Your task to perform on an android device: What's the weather going to be this weekend? Image 0: 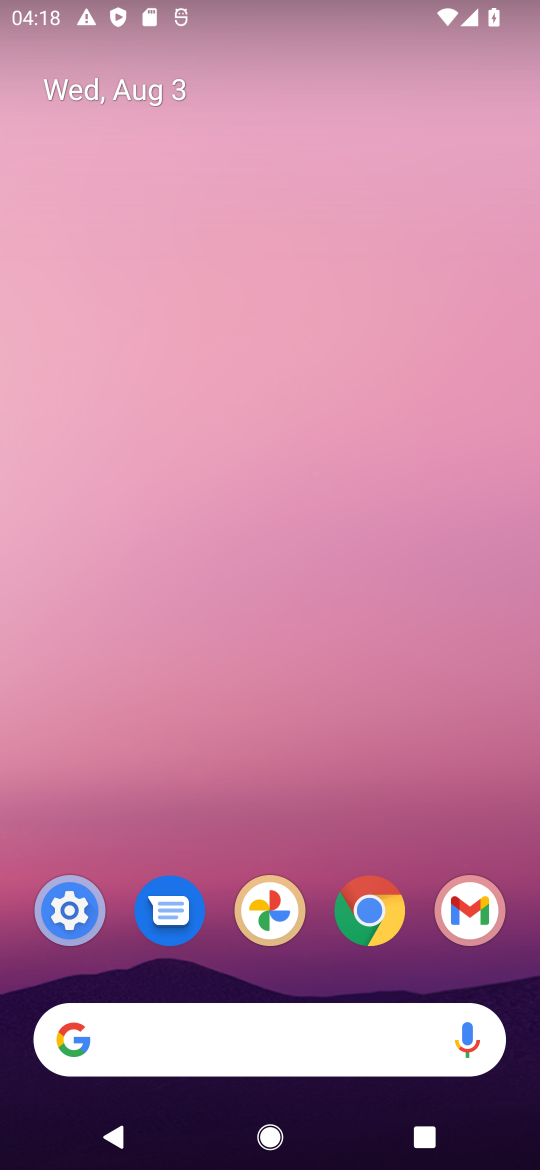
Step 0: drag from (310, 839) to (370, 5)
Your task to perform on an android device: What's the weather going to be this weekend? Image 1: 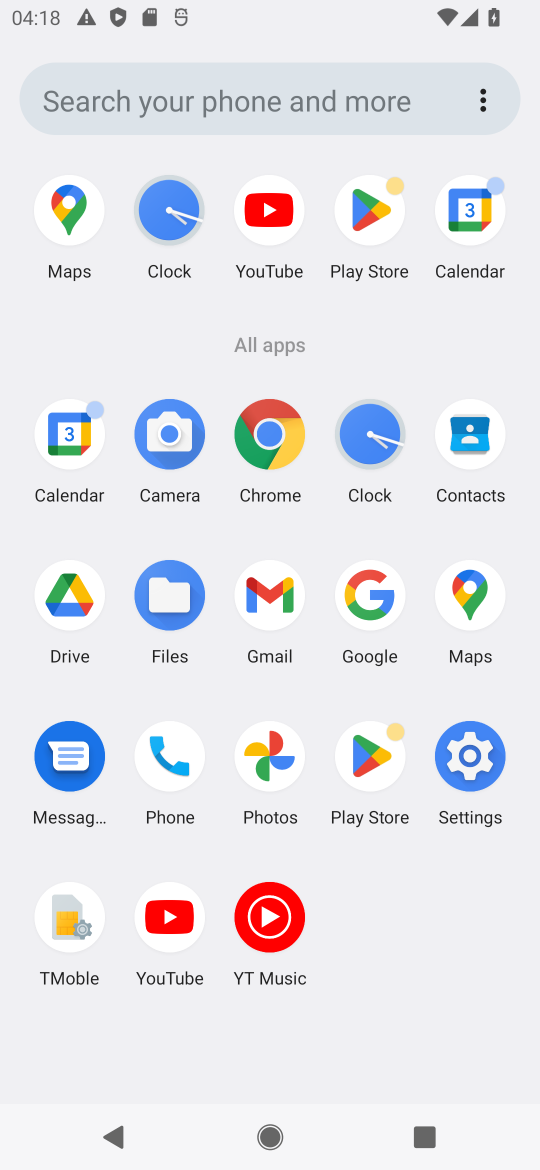
Step 1: click (208, 89)
Your task to perform on an android device: What's the weather going to be this weekend? Image 2: 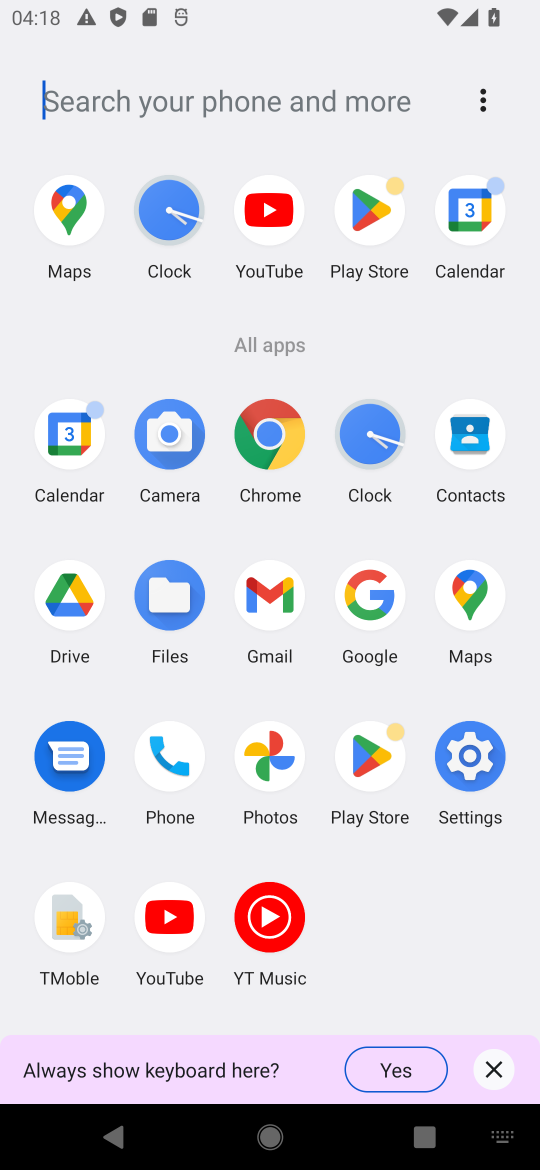
Step 2: click (493, 1066)
Your task to perform on an android device: What's the weather going to be this weekend? Image 3: 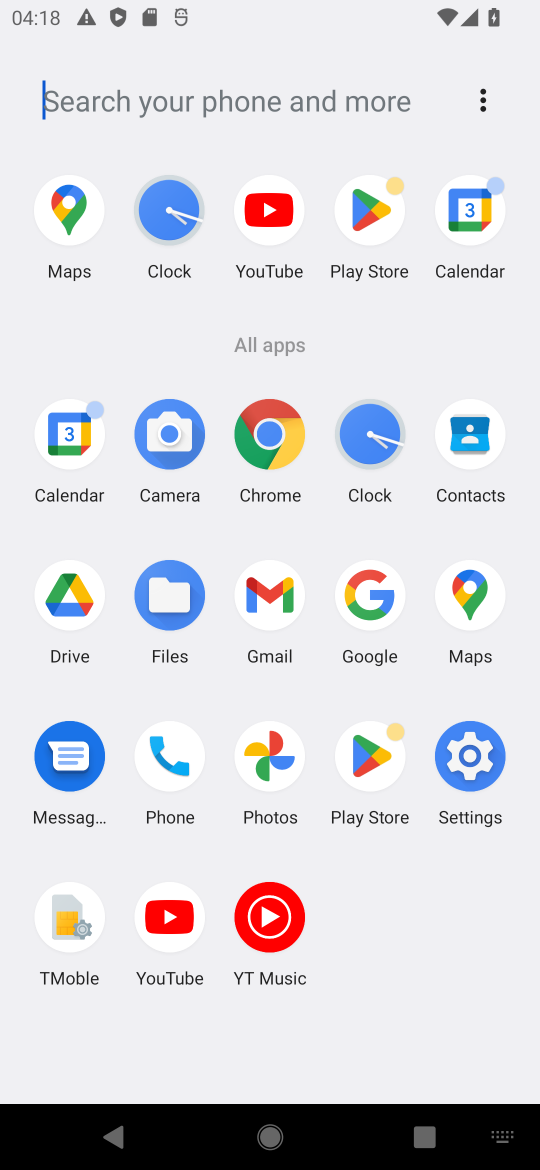
Step 3: type "weather"
Your task to perform on an android device: What's the weather going to be this weekend? Image 4: 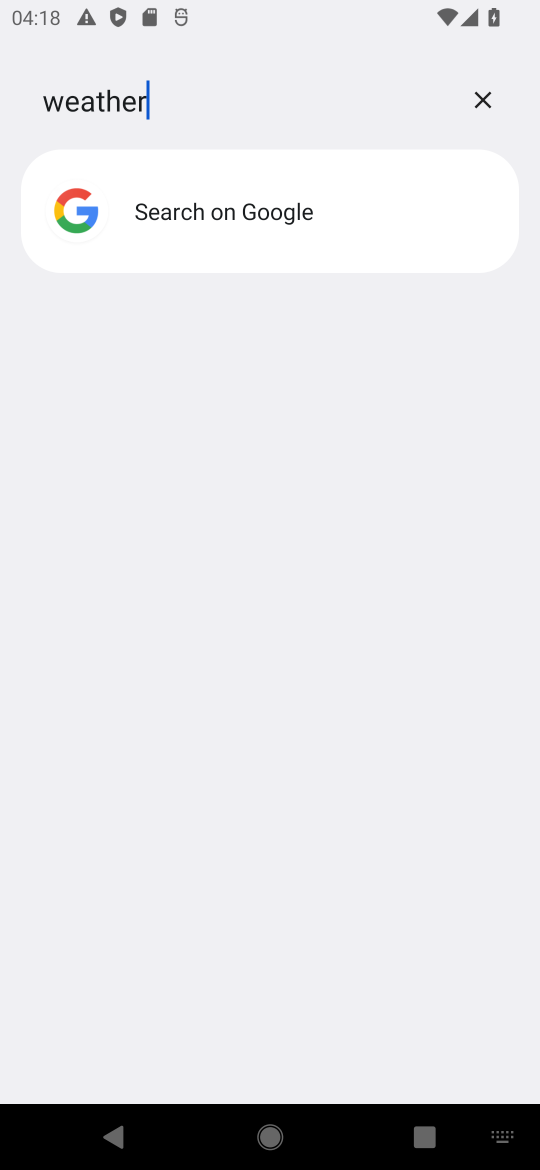
Step 4: click (215, 210)
Your task to perform on an android device: What's the weather going to be this weekend? Image 5: 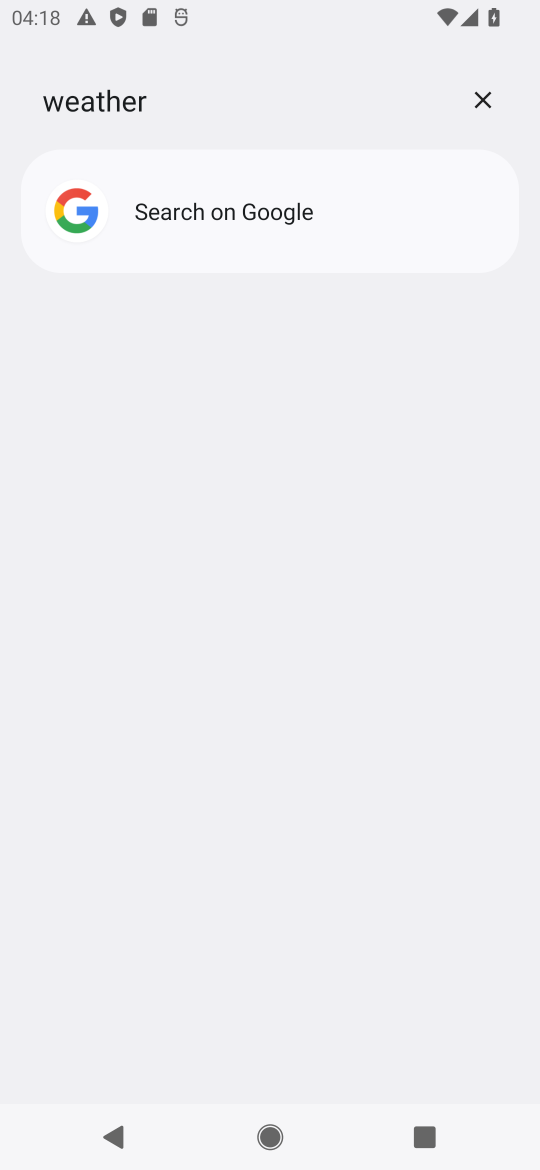
Step 5: click (159, 221)
Your task to perform on an android device: What's the weather going to be this weekend? Image 6: 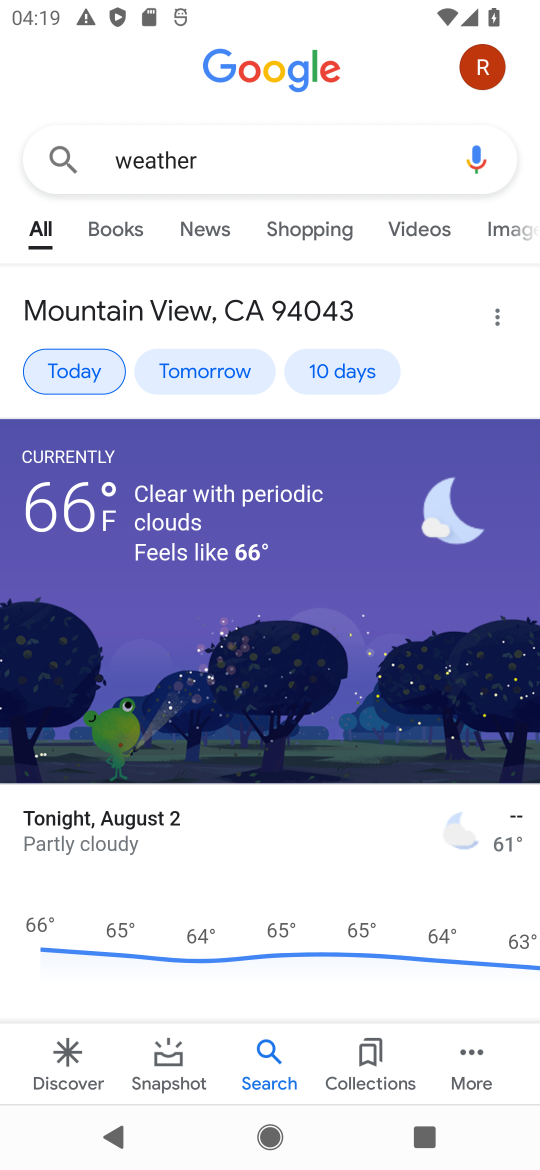
Step 6: drag from (245, 816) to (225, 565)
Your task to perform on an android device: What's the weather going to be this weekend? Image 7: 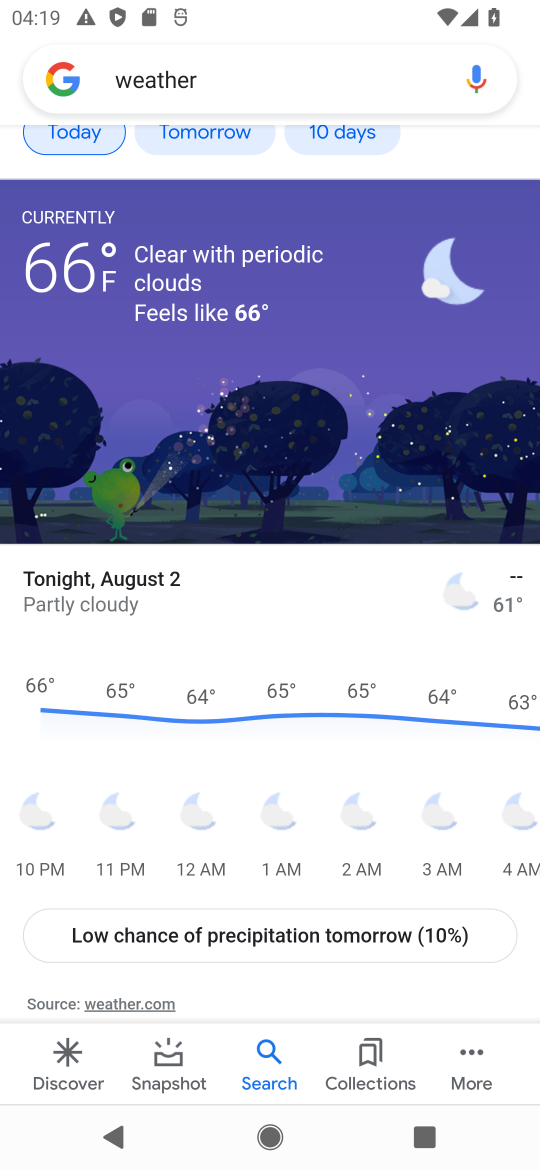
Step 7: click (355, 135)
Your task to perform on an android device: What's the weather going to be this weekend? Image 8: 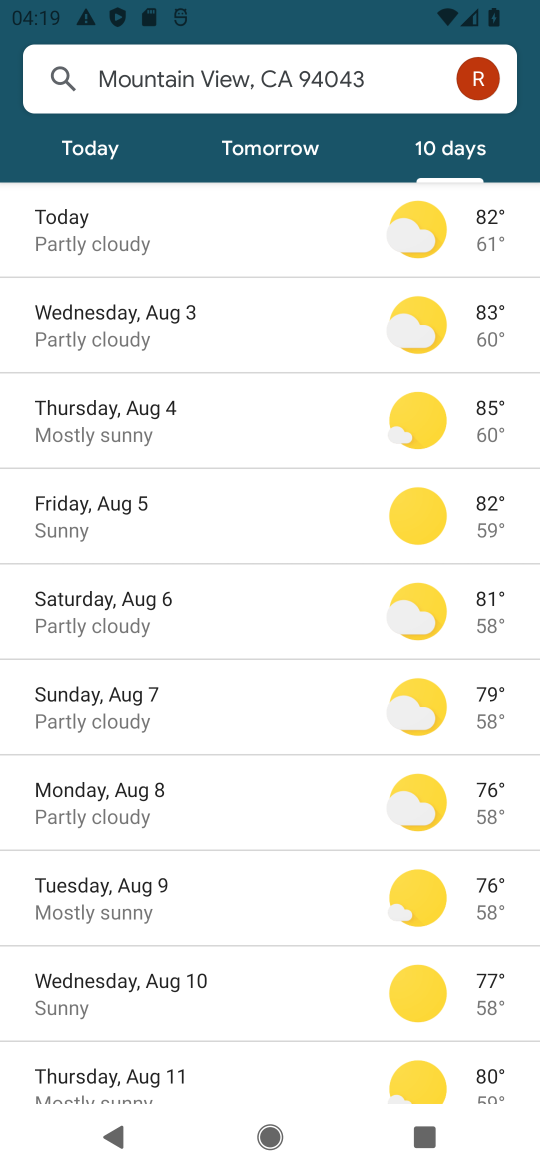
Step 8: click (128, 621)
Your task to perform on an android device: What's the weather going to be this weekend? Image 9: 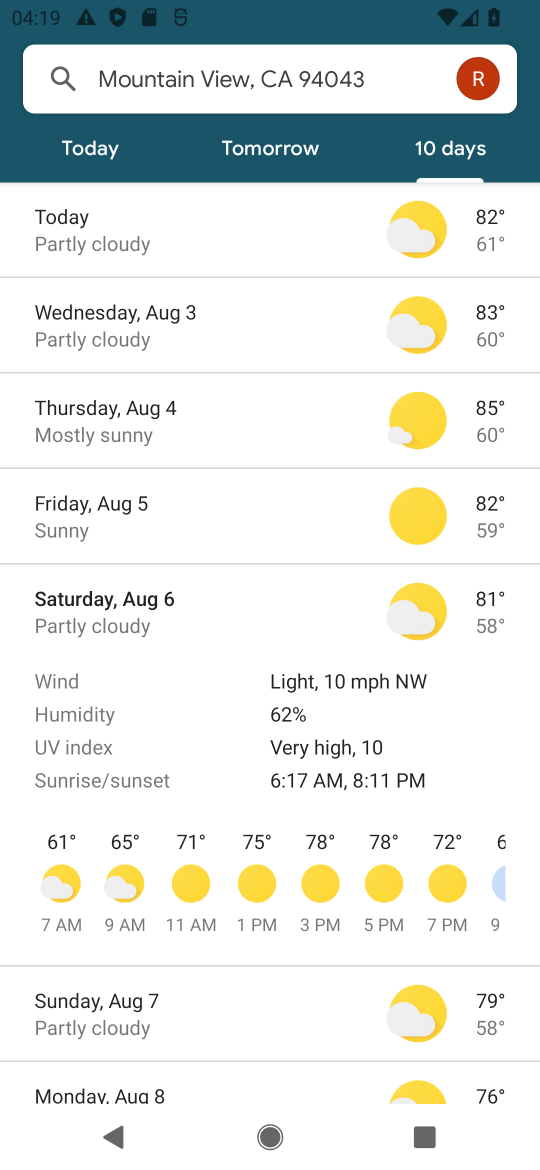
Step 9: click (209, 1019)
Your task to perform on an android device: What's the weather going to be this weekend? Image 10: 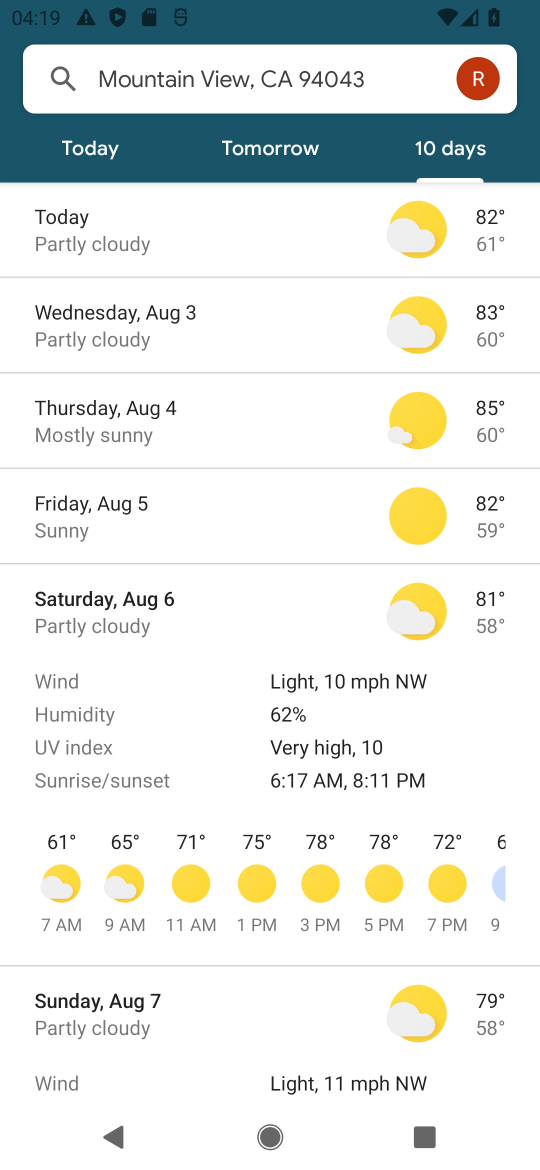
Step 10: task complete